Your task to perform on an android device: Open the map Image 0: 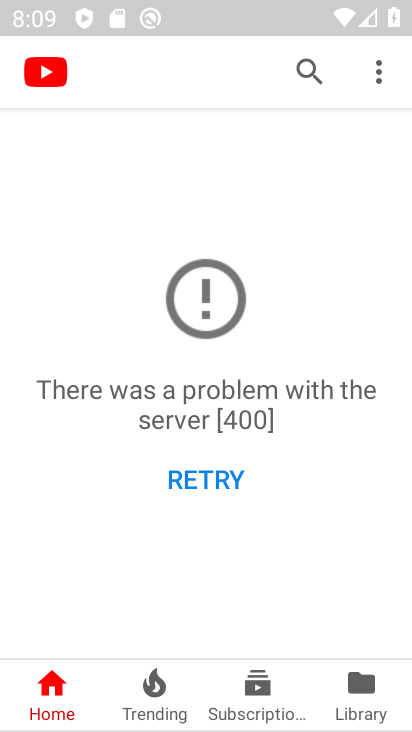
Step 0: press home button
Your task to perform on an android device: Open the map Image 1: 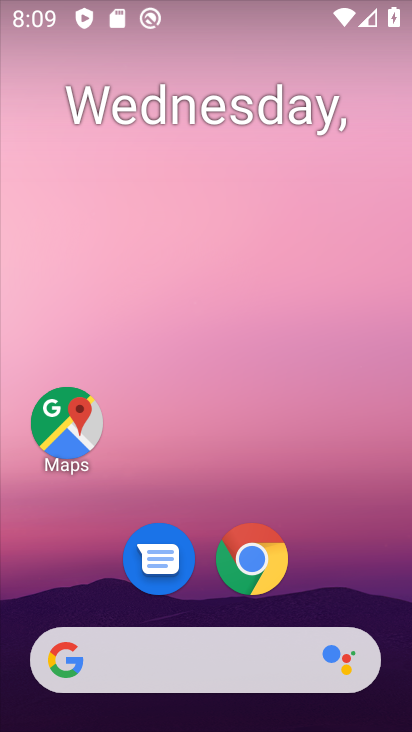
Step 1: click (69, 428)
Your task to perform on an android device: Open the map Image 2: 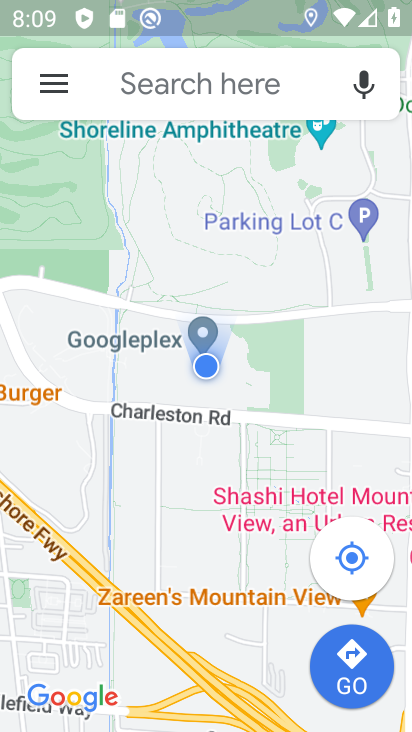
Step 2: task complete